Your task to perform on an android device: Open the calendar app, open the side menu, and click the "Day" option Image 0: 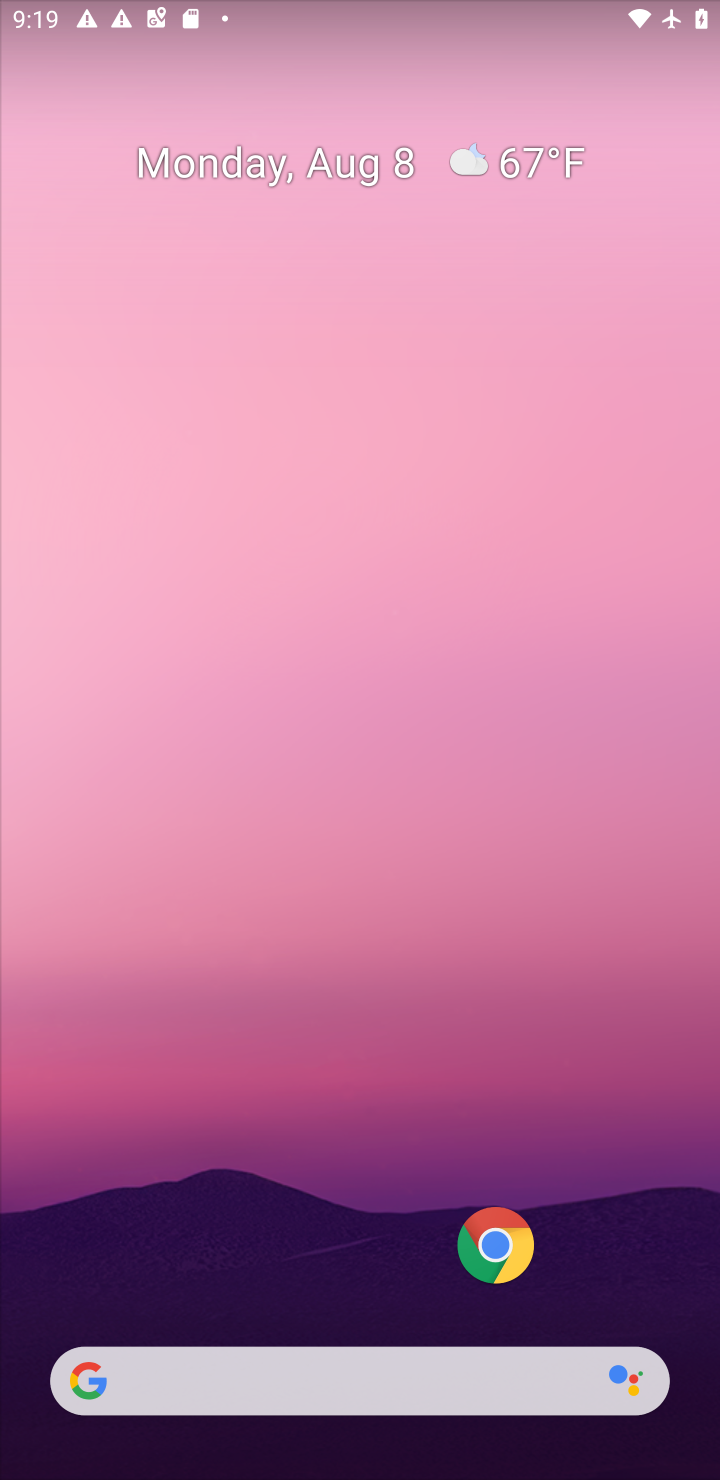
Step 0: drag from (294, 1220) to (185, 14)
Your task to perform on an android device: Open the calendar app, open the side menu, and click the "Day" option Image 1: 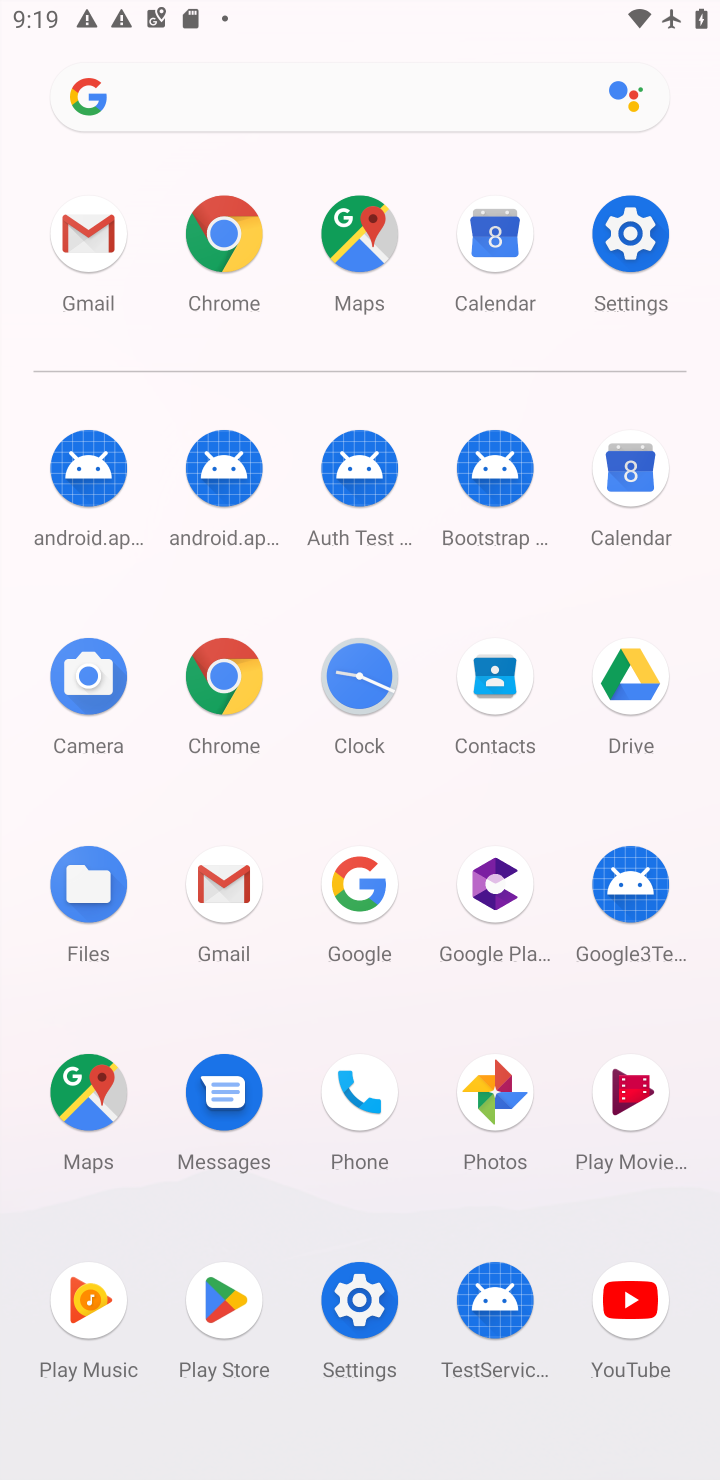
Step 1: click (656, 504)
Your task to perform on an android device: Open the calendar app, open the side menu, and click the "Day" option Image 2: 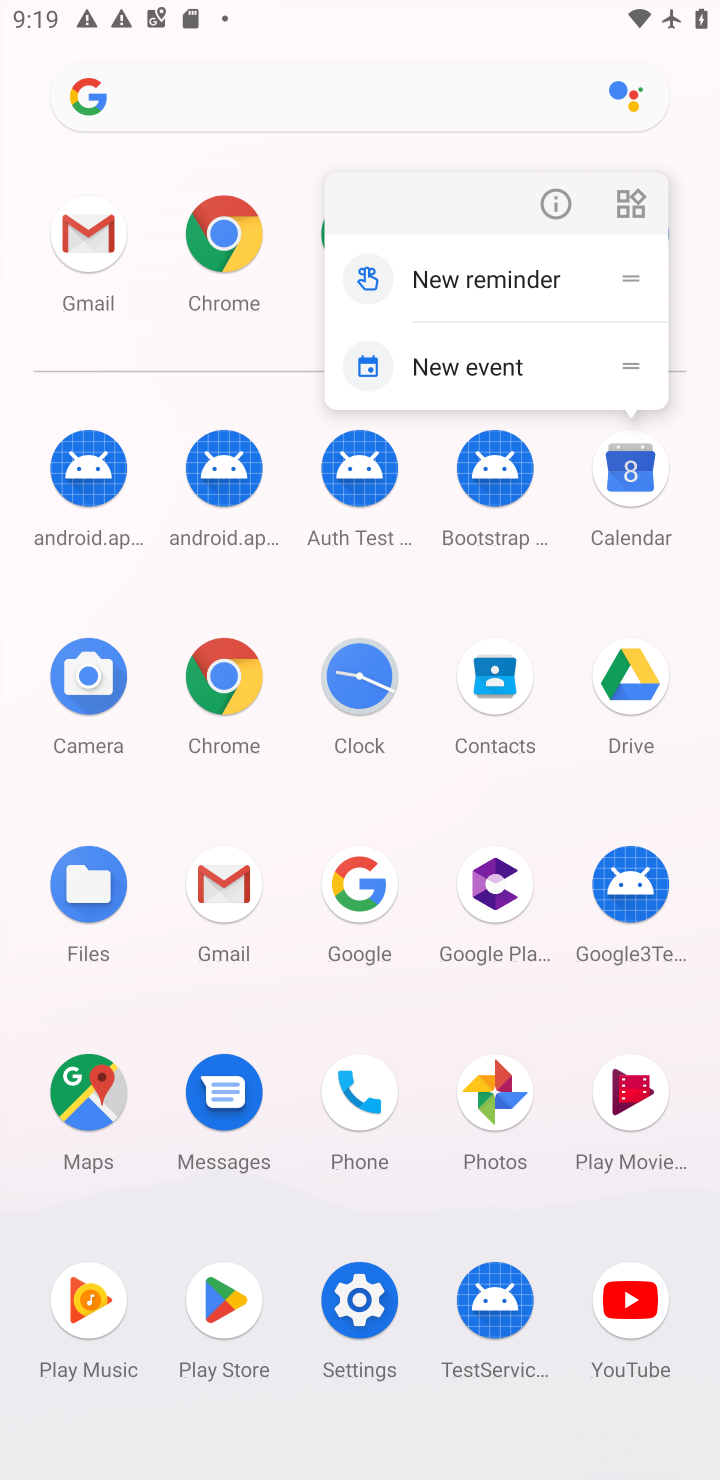
Step 2: click (628, 497)
Your task to perform on an android device: Open the calendar app, open the side menu, and click the "Day" option Image 3: 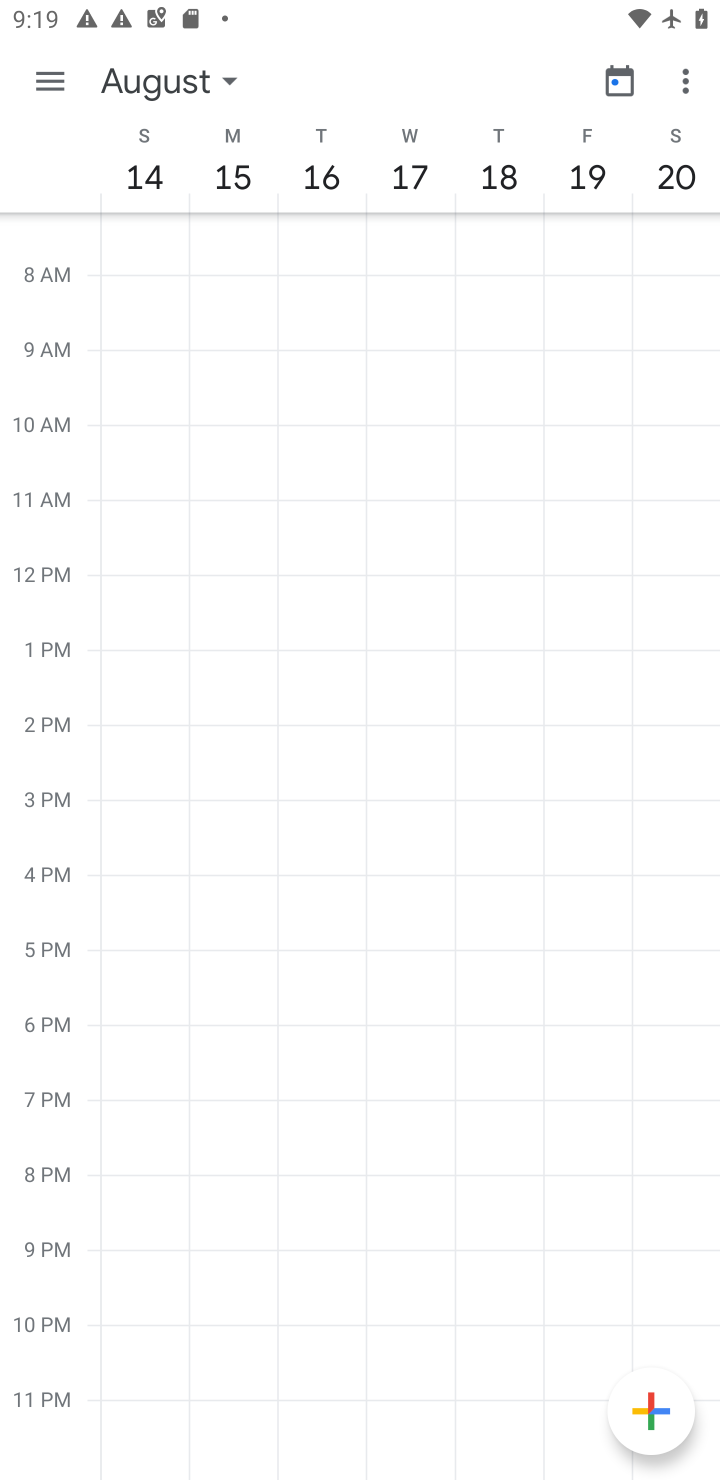
Step 3: click (37, 72)
Your task to perform on an android device: Open the calendar app, open the side menu, and click the "Day" option Image 4: 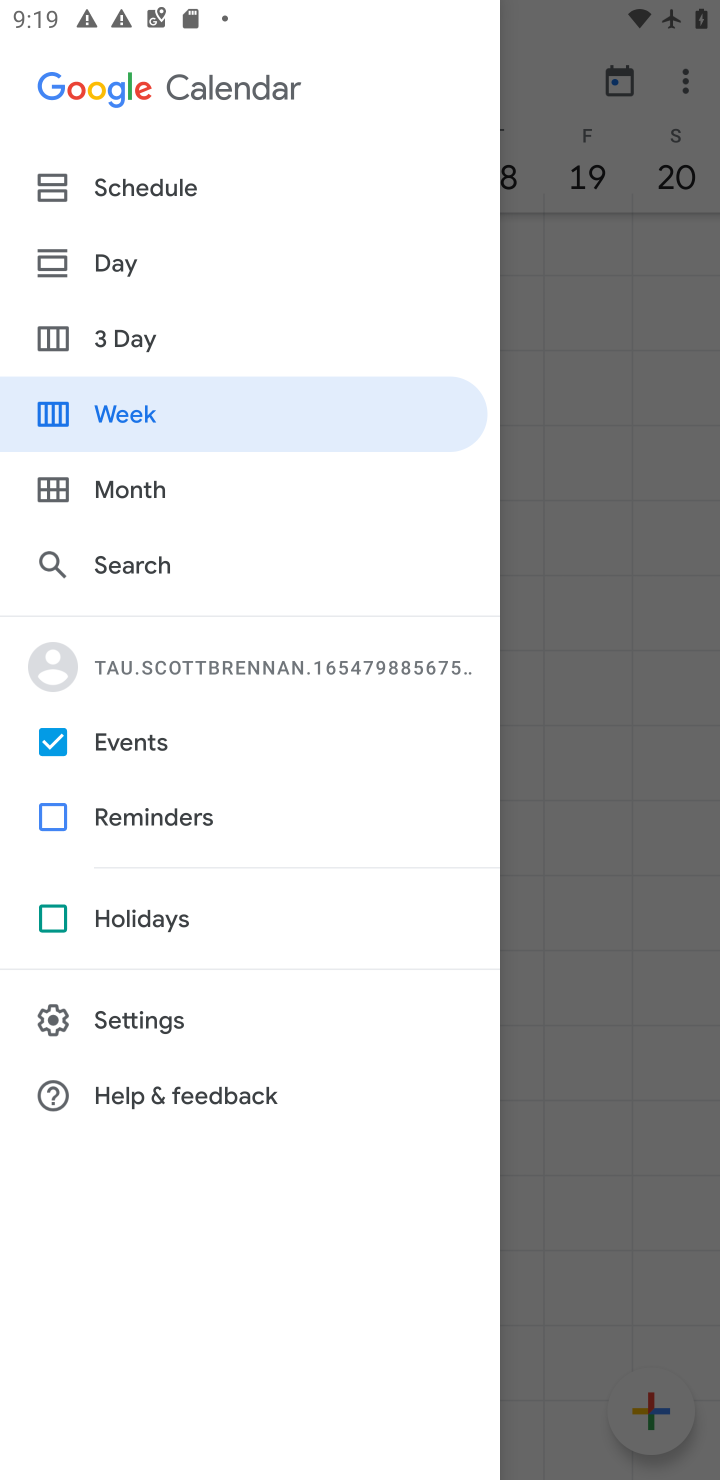
Step 4: click (151, 280)
Your task to perform on an android device: Open the calendar app, open the side menu, and click the "Day" option Image 5: 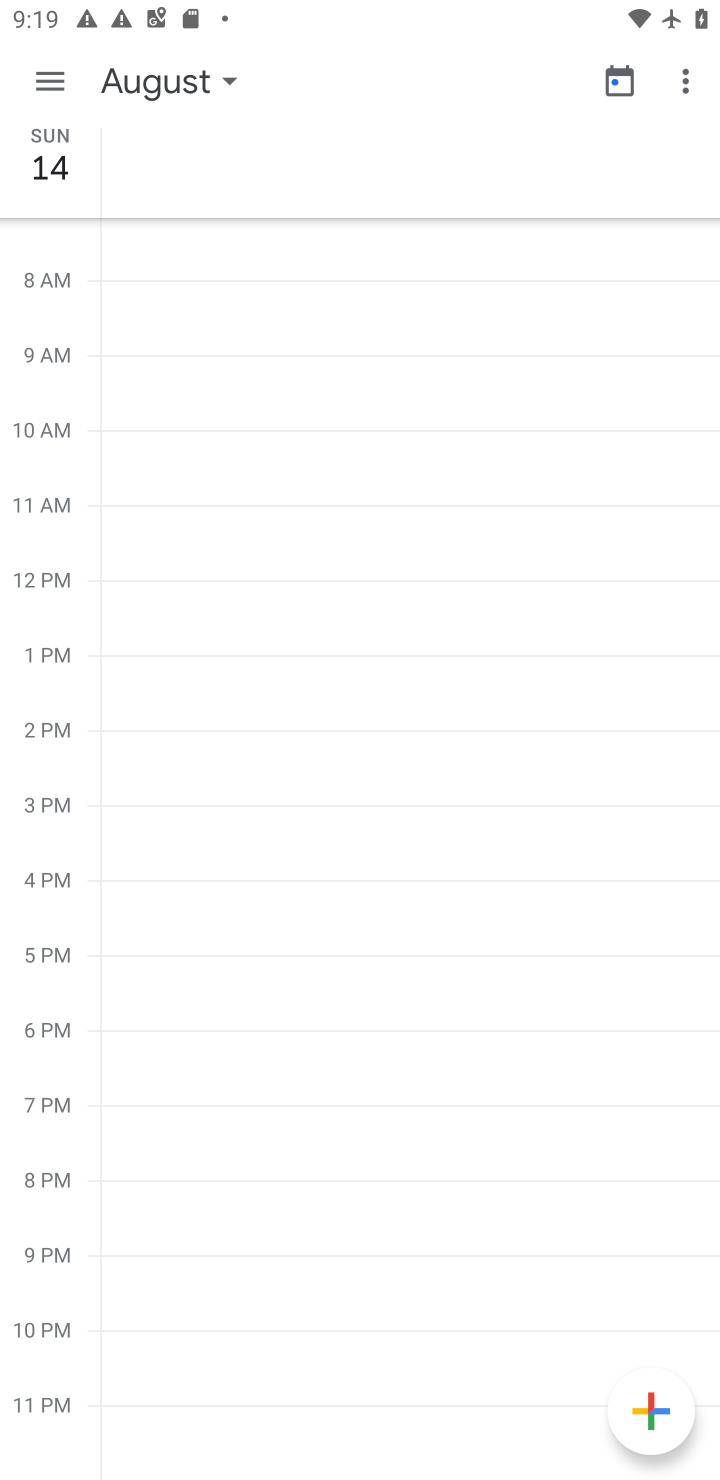
Step 5: task complete